Your task to perform on an android device: Check the weather Image 0: 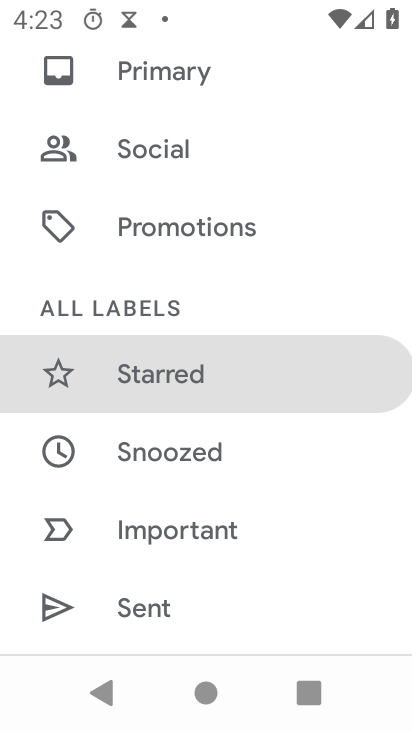
Step 0: press home button
Your task to perform on an android device: Check the weather Image 1: 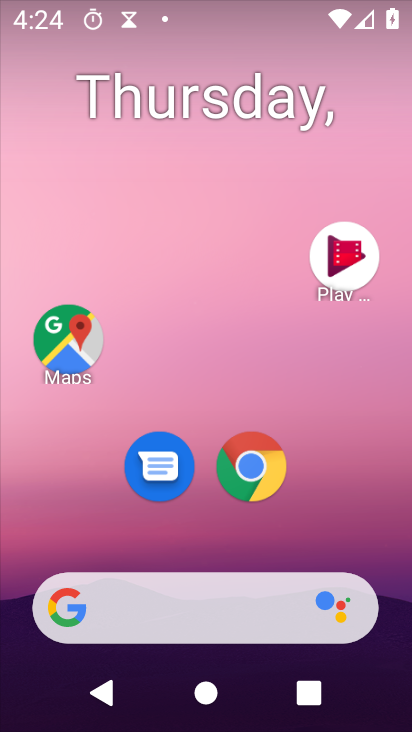
Step 1: drag from (288, 578) to (302, 1)
Your task to perform on an android device: Check the weather Image 2: 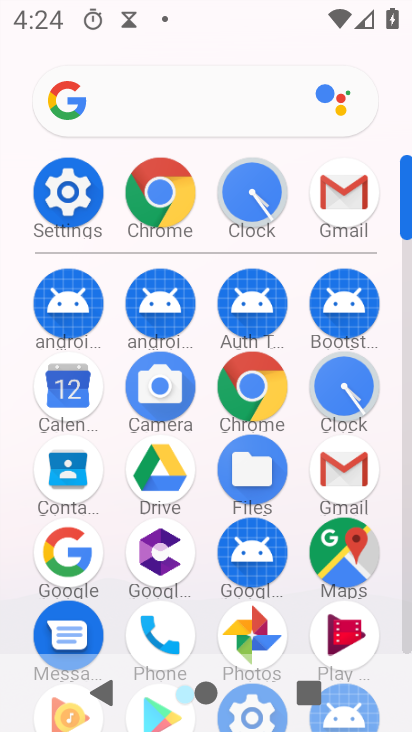
Step 2: click (250, 382)
Your task to perform on an android device: Check the weather Image 3: 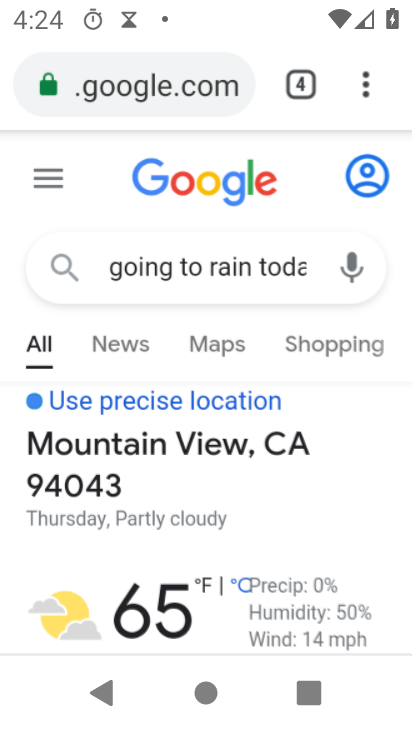
Step 3: click (214, 102)
Your task to perform on an android device: Check the weather Image 4: 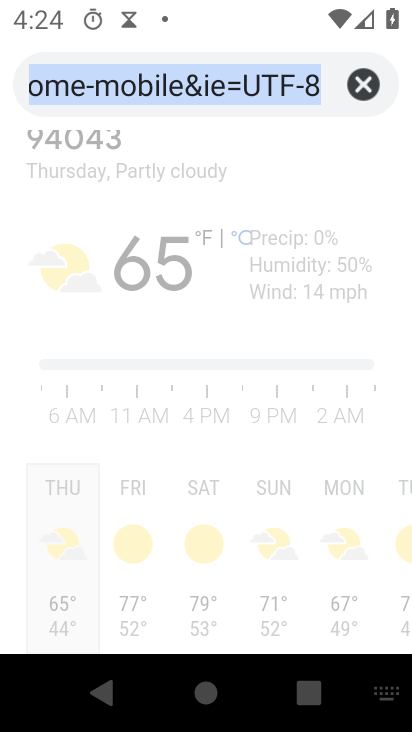
Step 4: click (362, 86)
Your task to perform on an android device: Check the weather Image 5: 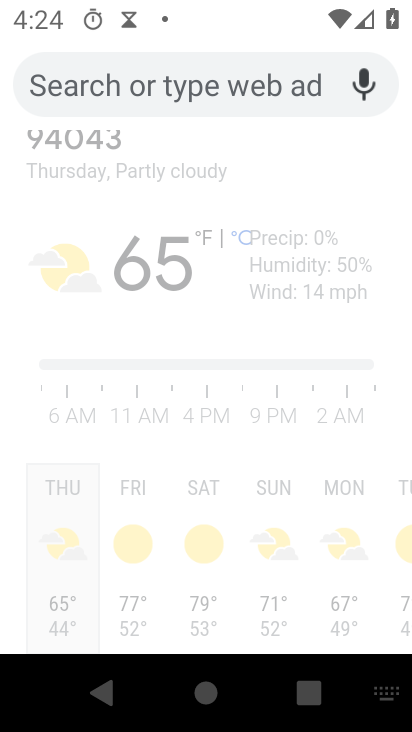
Step 5: type "check the weather"
Your task to perform on an android device: Check the weather Image 6: 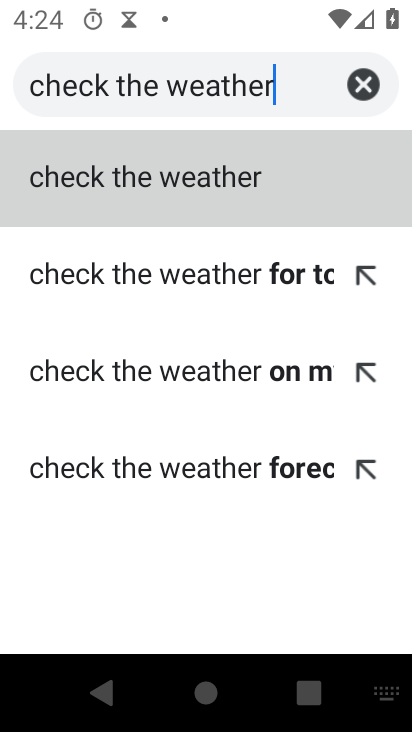
Step 6: click (300, 199)
Your task to perform on an android device: Check the weather Image 7: 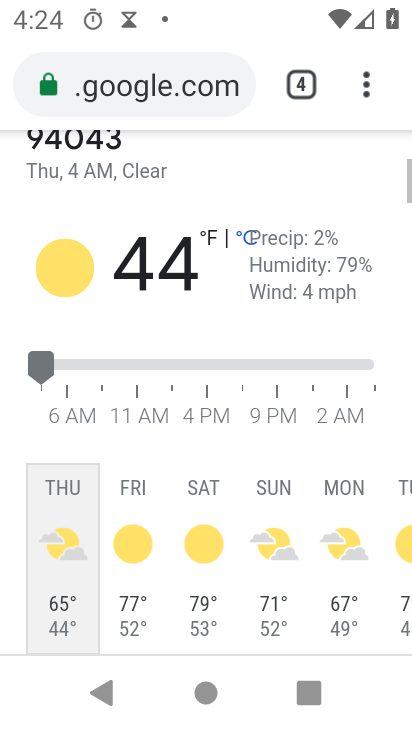
Step 7: task complete